Your task to perform on an android device: delete browsing data in the chrome app Image 0: 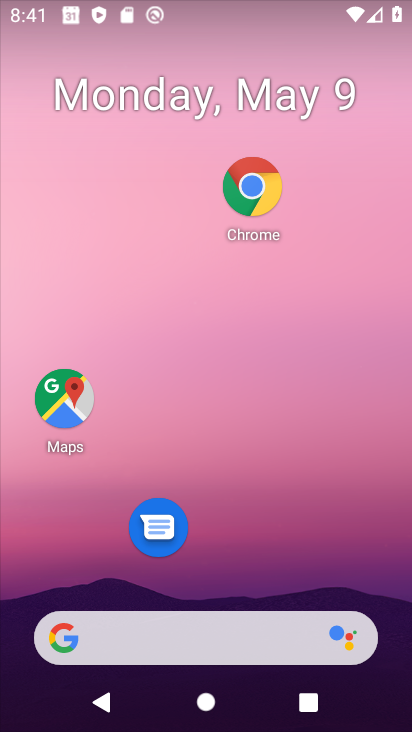
Step 0: press home button
Your task to perform on an android device: delete browsing data in the chrome app Image 1: 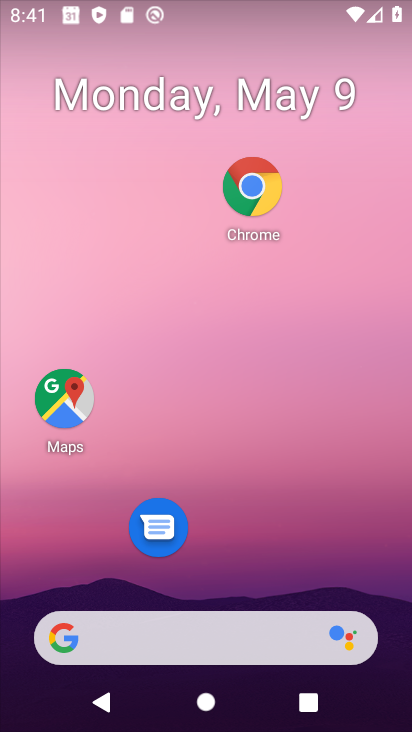
Step 1: drag from (219, 580) to (264, 37)
Your task to perform on an android device: delete browsing data in the chrome app Image 2: 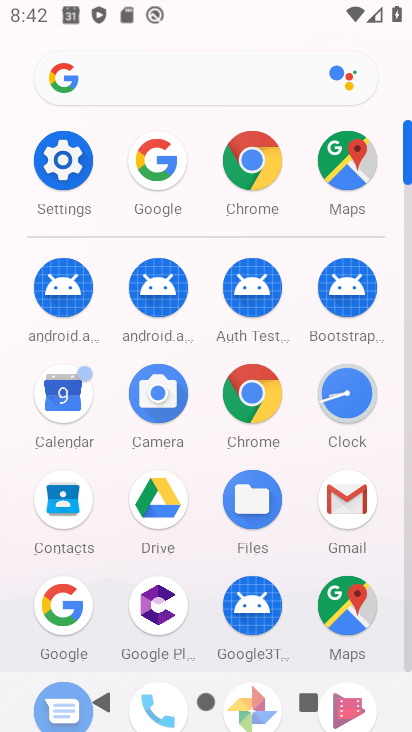
Step 2: click (251, 388)
Your task to perform on an android device: delete browsing data in the chrome app Image 3: 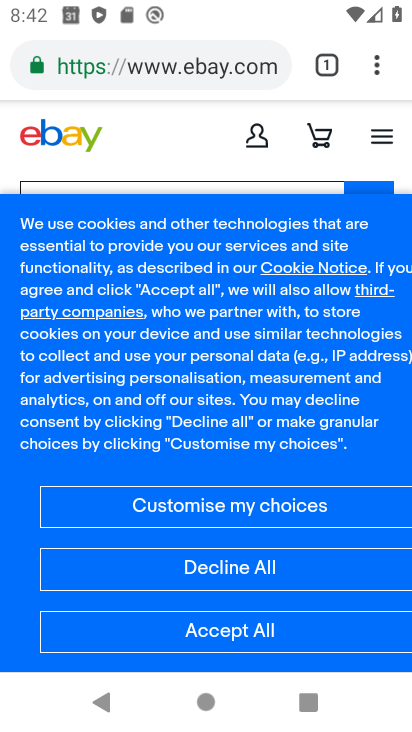
Step 3: click (376, 59)
Your task to perform on an android device: delete browsing data in the chrome app Image 4: 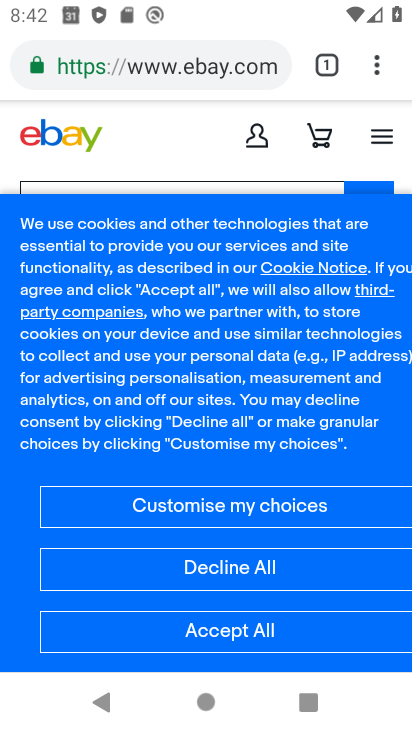
Step 4: click (371, 65)
Your task to perform on an android device: delete browsing data in the chrome app Image 5: 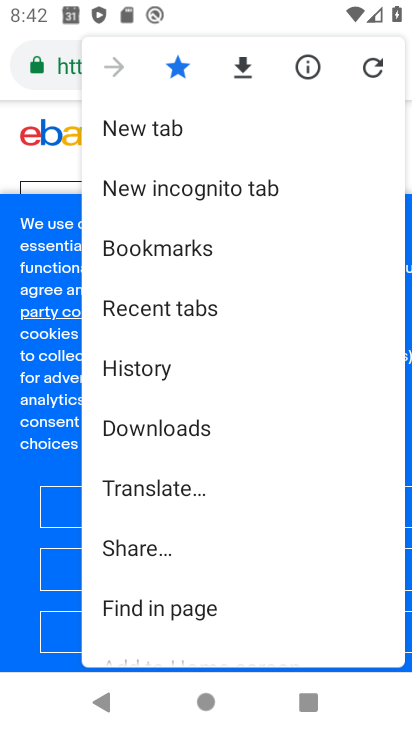
Step 5: click (180, 366)
Your task to perform on an android device: delete browsing data in the chrome app Image 6: 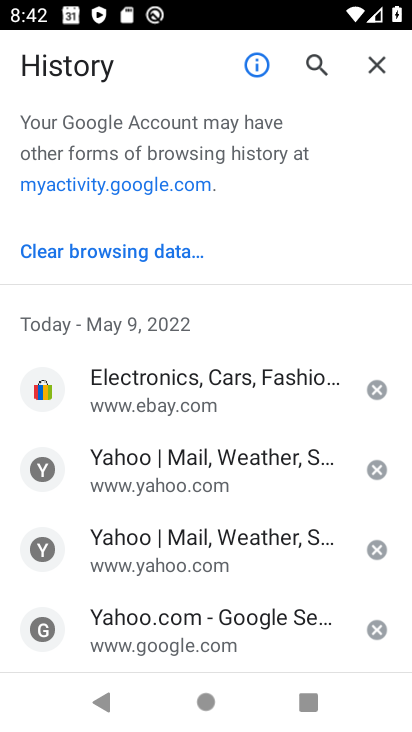
Step 6: click (116, 252)
Your task to perform on an android device: delete browsing data in the chrome app Image 7: 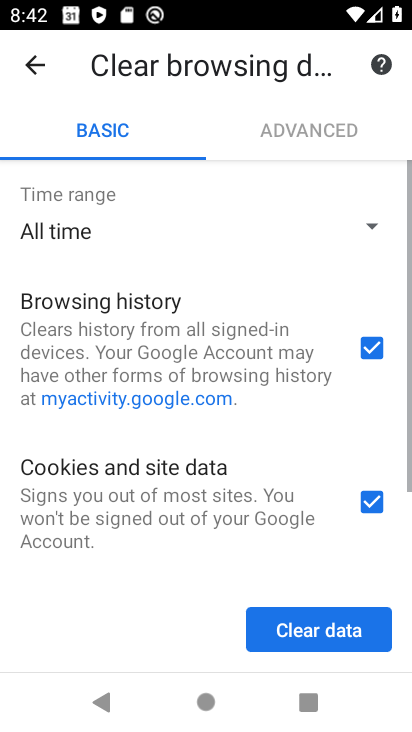
Step 7: drag from (256, 492) to (299, 274)
Your task to perform on an android device: delete browsing data in the chrome app Image 8: 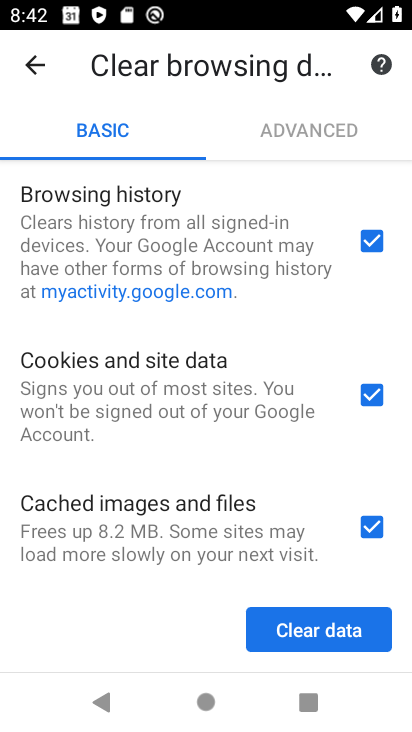
Step 8: click (323, 628)
Your task to perform on an android device: delete browsing data in the chrome app Image 9: 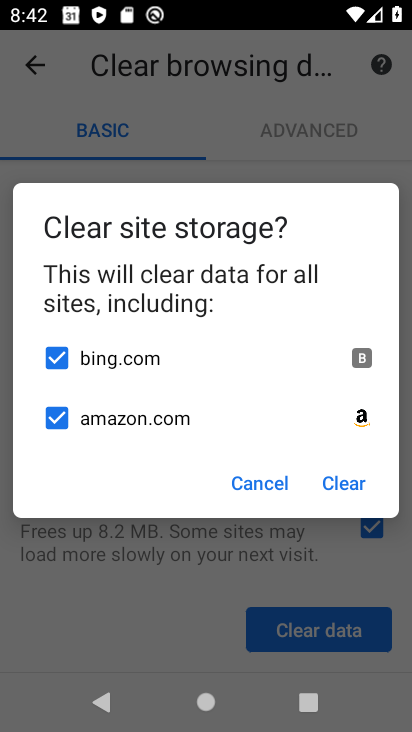
Step 9: click (340, 482)
Your task to perform on an android device: delete browsing data in the chrome app Image 10: 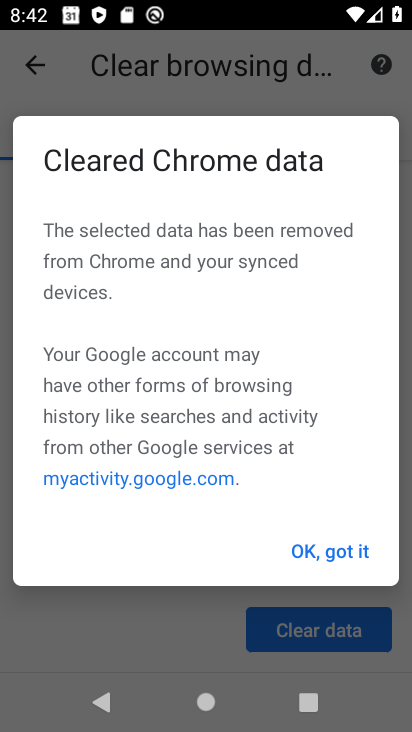
Step 10: click (325, 552)
Your task to perform on an android device: delete browsing data in the chrome app Image 11: 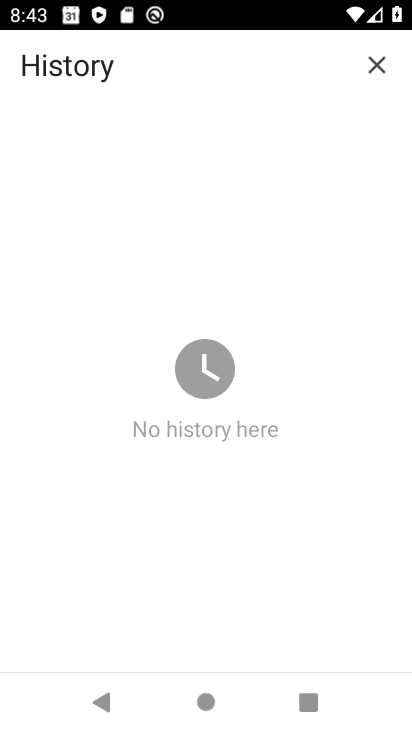
Step 11: click (375, 65)
Your task to perform on an android device: delete browsing data in the chrome app Image 12: 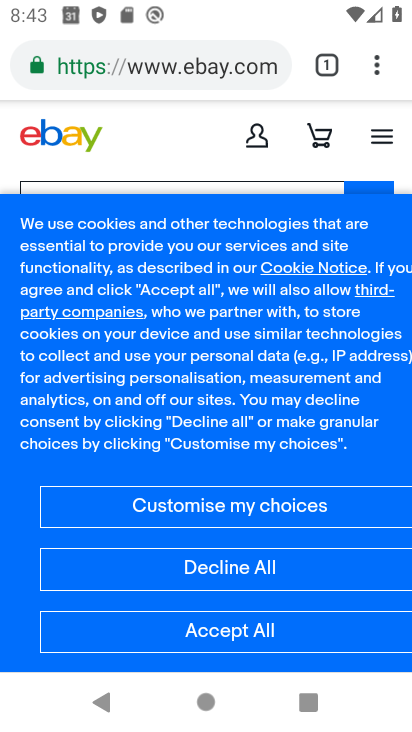
Step 12: task complete